Your task to perform on an android device: Search for Italian restaurants on Maps Image 0: 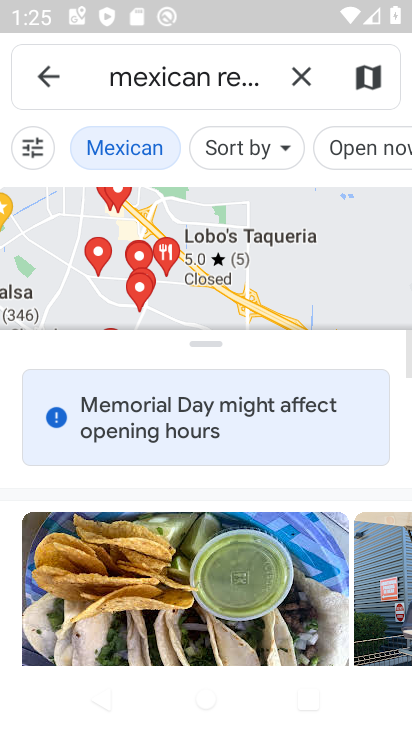
Step 0: click (299, 74)
Your task to perform on an android device: Search for Italian restaurants on Maps Image 1: 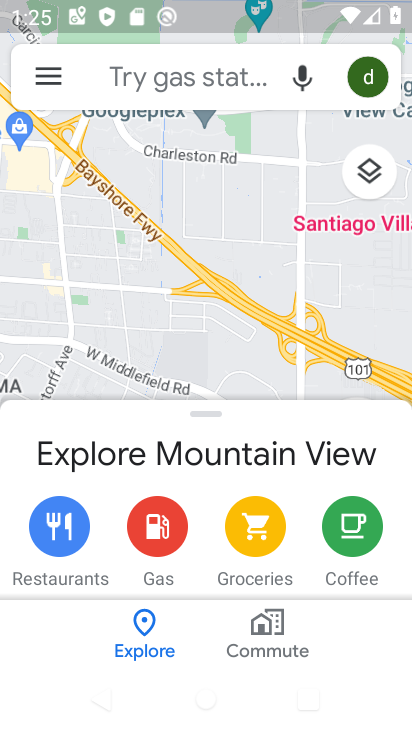
Step 1: click (212, 71)
Your task to perform on an android device: Search for Italian restaurants on Maps Image 2: 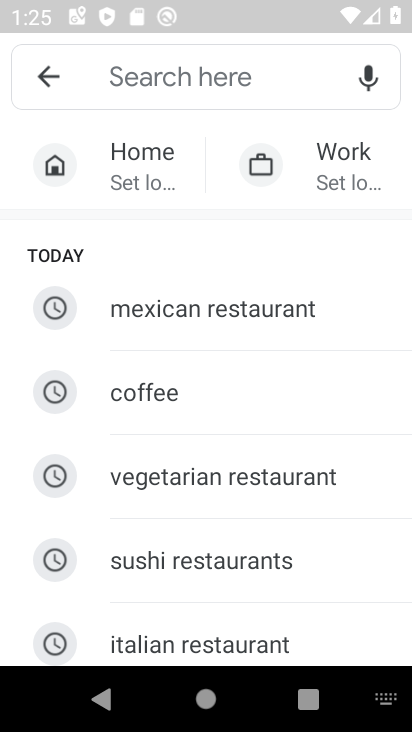
Step 2: type "italian restaurants"
Your task to perform on an android device: Search for Italian restaurants on Maps Image 3: 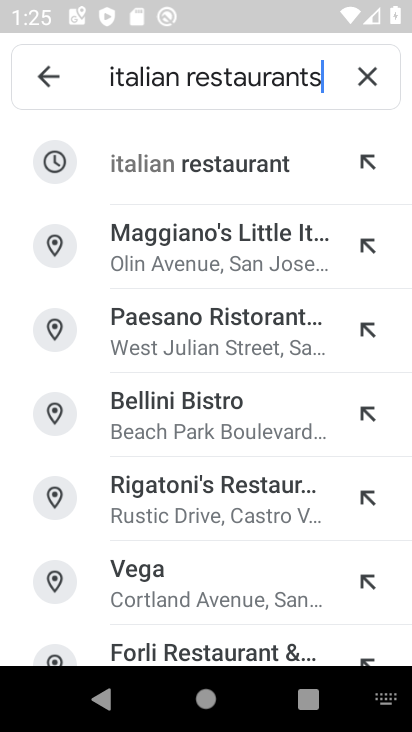
Step 3: click (256, 162)
Your task to perform on an android device: Search for Italian restaurants on Maps Image 4: 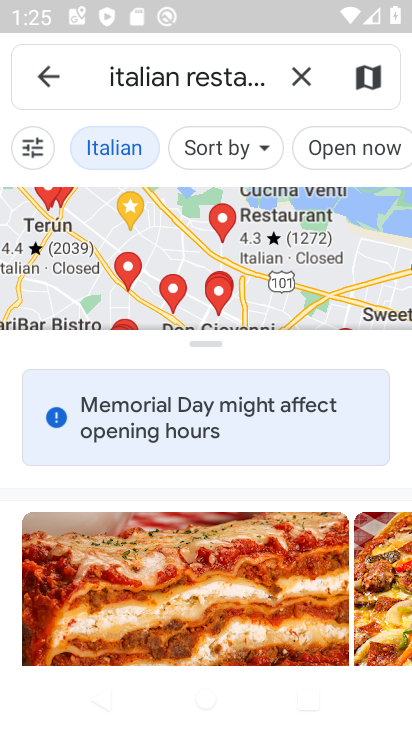
Step 4: task complete